Your task to perform on an android device: Open settings Image 0: 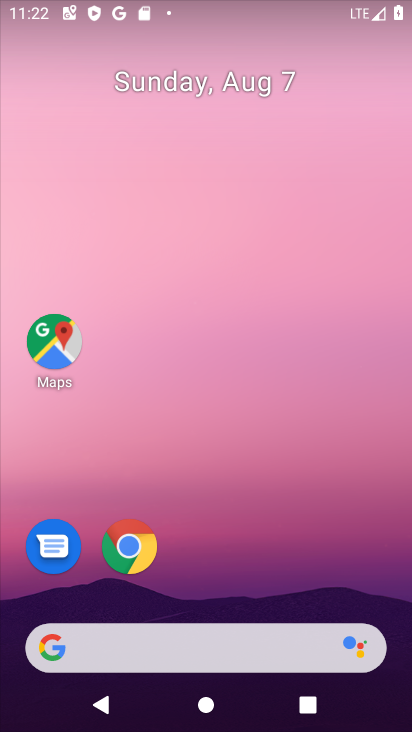
Step 0: click (186, 291)
Your task to perform on an android device: Open settings Image 1: 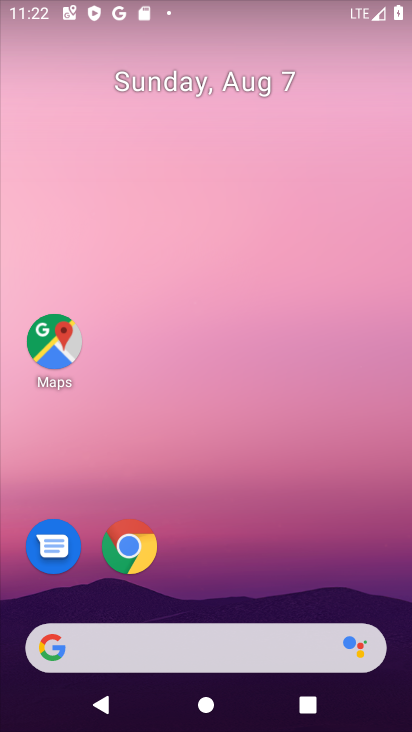
Step 1: drag from (194, 365) to (194, 214)
Your task to perform on an android device: Open settings Image 2: 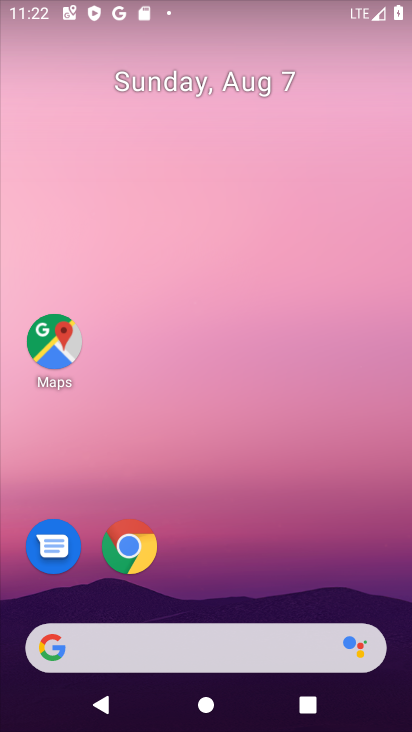
Step 2: drag from (220, 626) to (236, 273)
Your task to perform on an android device: Open settings Image 3: 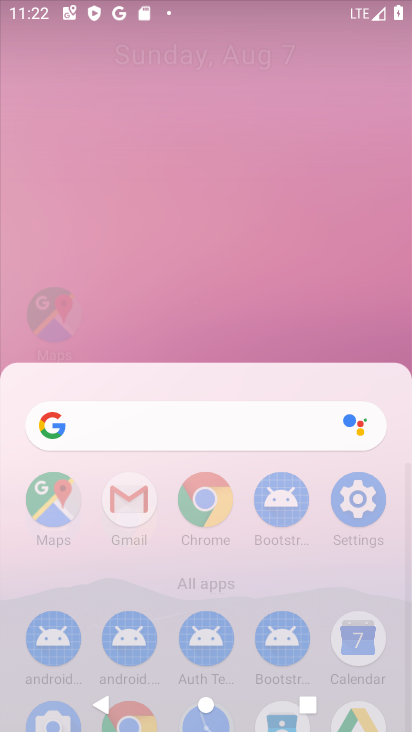
Step 3: click (247, 237)
Your task to perform on an android device: Open settings Image 4: 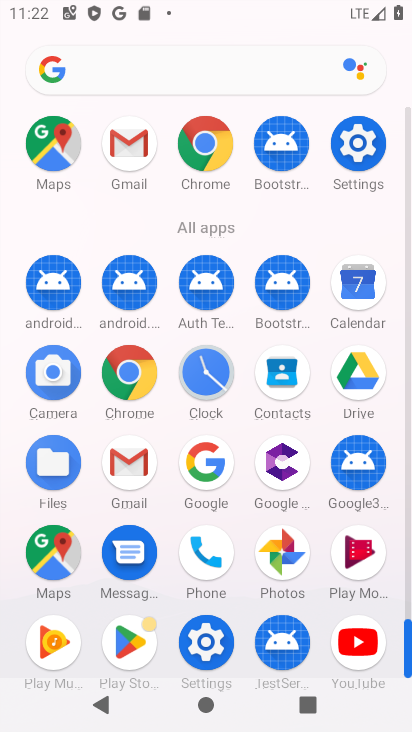
Step 4: click (357, 130)
Your task to perform on an android device: Open settings Image 5: 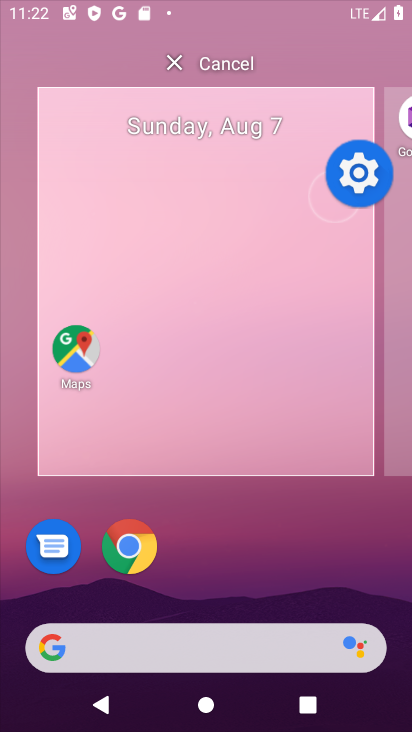
Step 5: click (362, 169)
Your task to perform on an android device: Open settings Image 6: 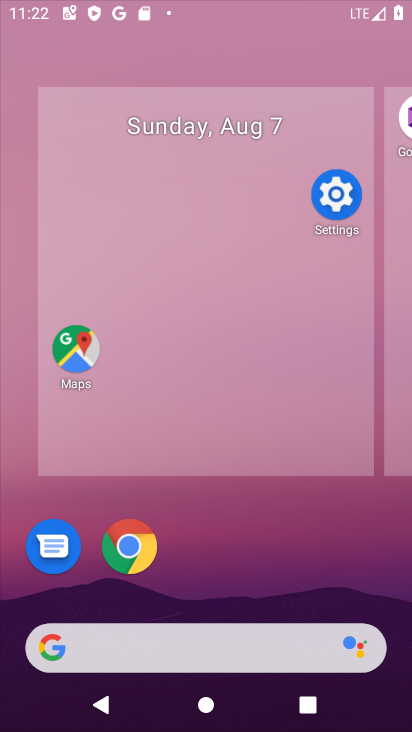
Step 6: click (362, 169)
Your task to perform on an android device: Open settings Image 7: 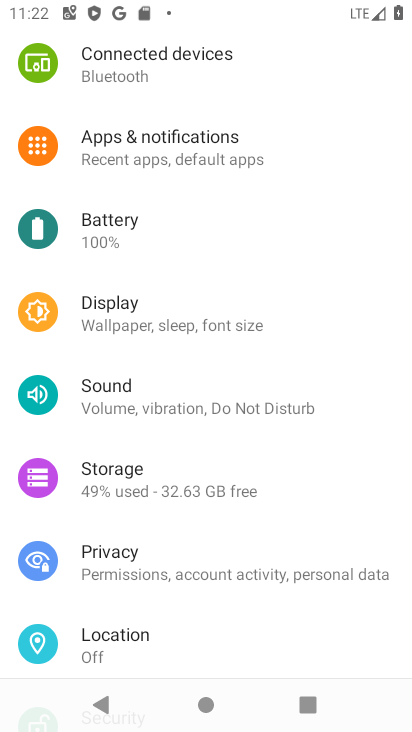
Step 7: task complete